Your task to perform on an android device: Go to privacy settings Image 0: 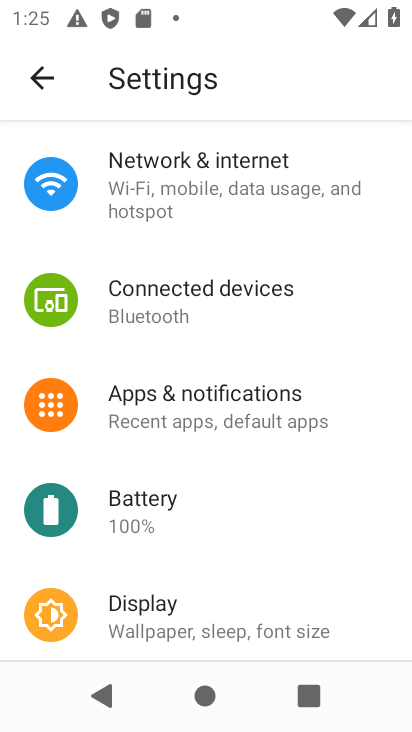
Step 0: press home button
Your task to perform on an android device: Go to privacy settings Image 1: 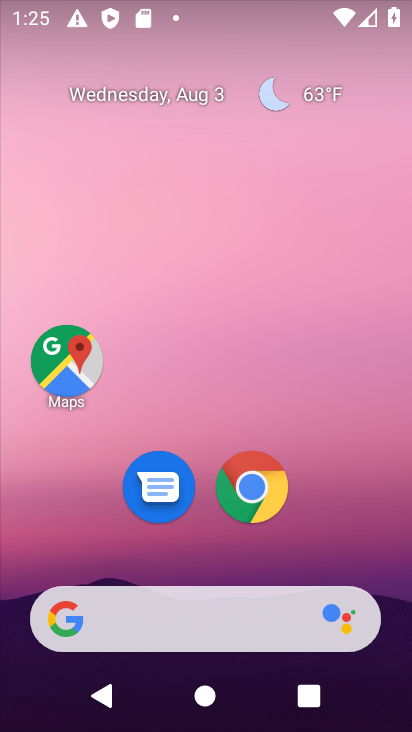
Step 1: drag from (317, 546) to (319, 114)
Your task to perform on an android device: Go to privacy settings Image 2: 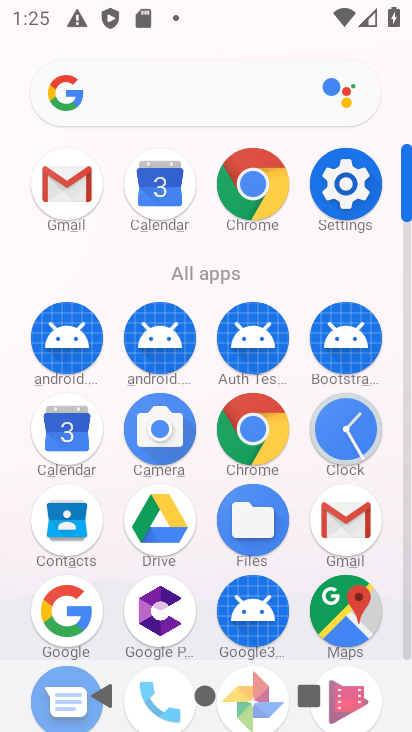
Step 2: click (350, 184)
Your task to perform on an android device: Go to privacy settings Image 3: 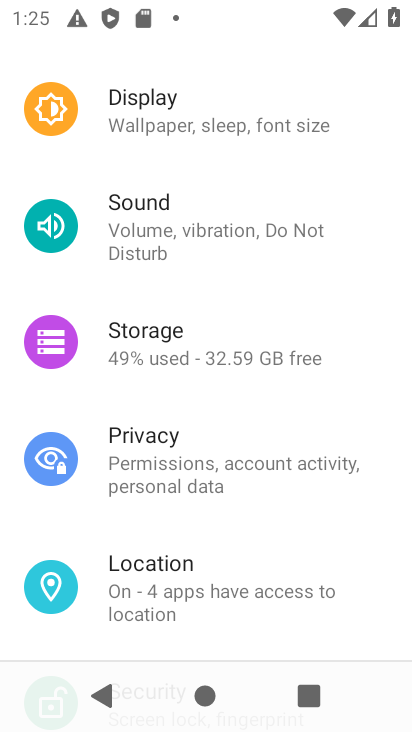
Step 3: click (133, 456)
Your task to perform on an android device: Go to privacy settings Image 4: 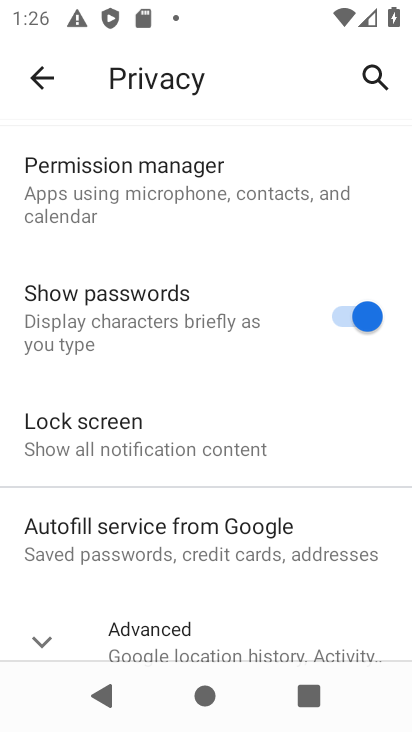
Step 4: task complete